Your task to perform on an android device: Open Google Maps Image 0: 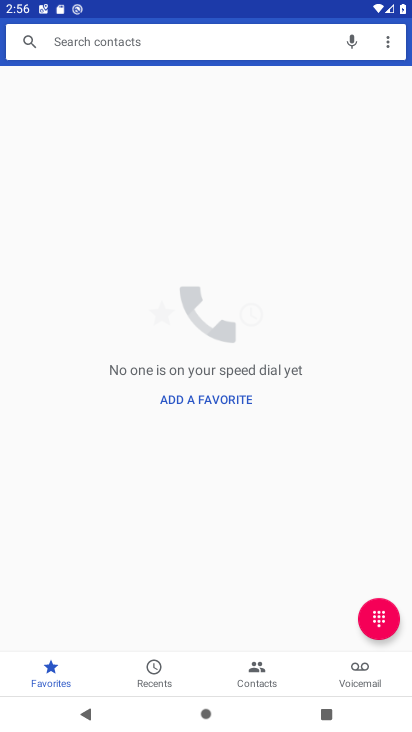
Step 0: press home button
Your task to perform on an android device: Open Google Maps Image 1: 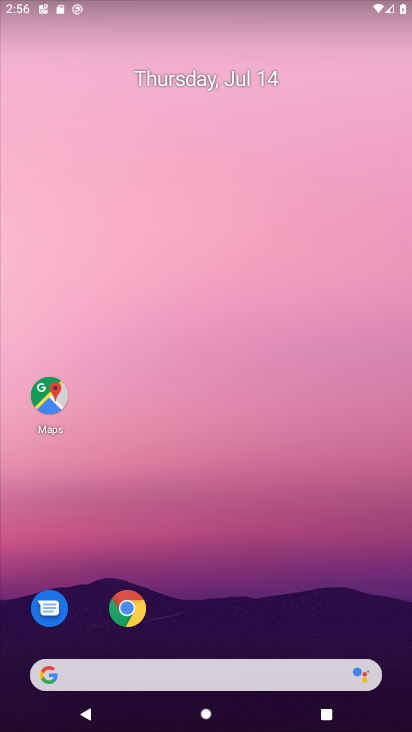
Step 1: drag from (207, 575) to (219, 112)
Your task to perform on an android device: Open Google Maps Image 2: 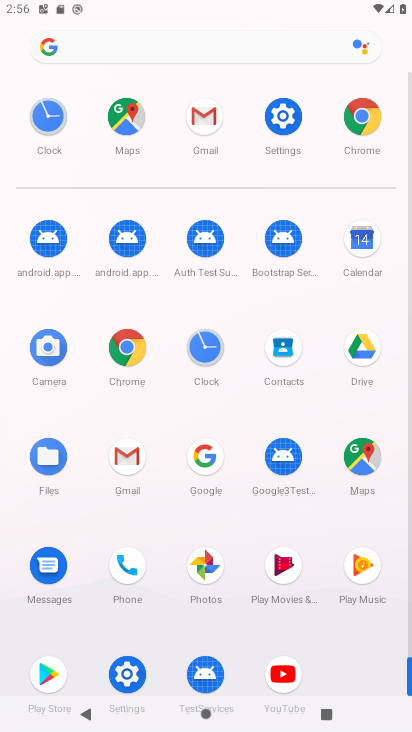
Step 2: click (126, 108)
Your task to perform on an android device: Open Google Maps Image 3: 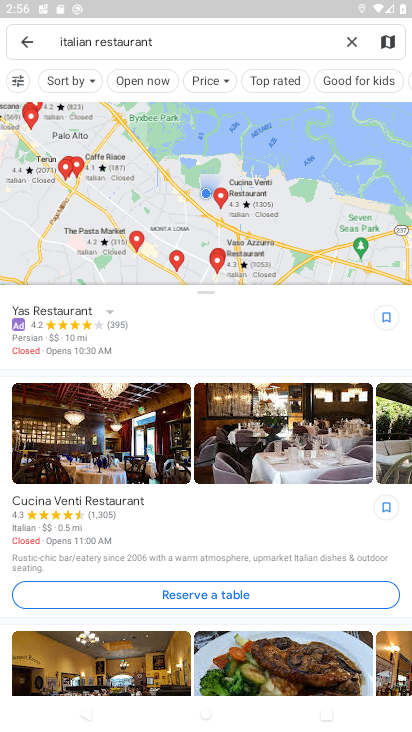
Step 3: click (31, 33)
Your task to perform on an android device: Open Google Maps Image 4: 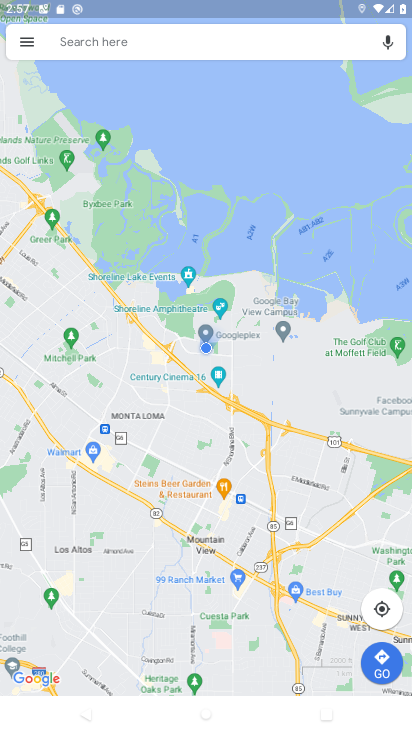
Step 4: task complete